Your task to perform on an android device: Open Youtube and go to "Your channel" Image 0: 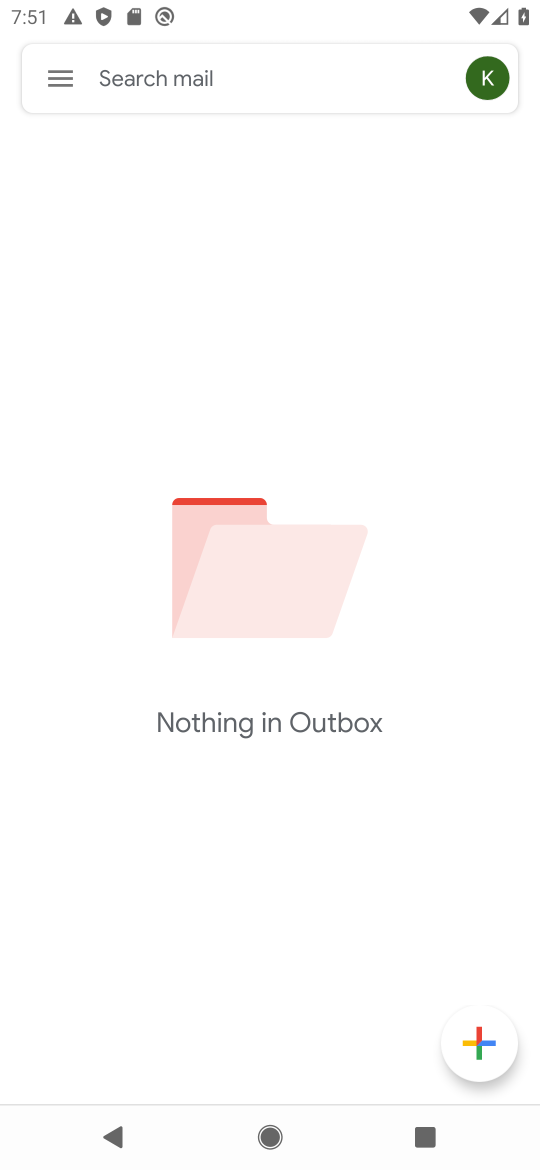
Step 0: press home button
Your task to perform on an android device: Open Youtube and go to "Your channel" Image 1: 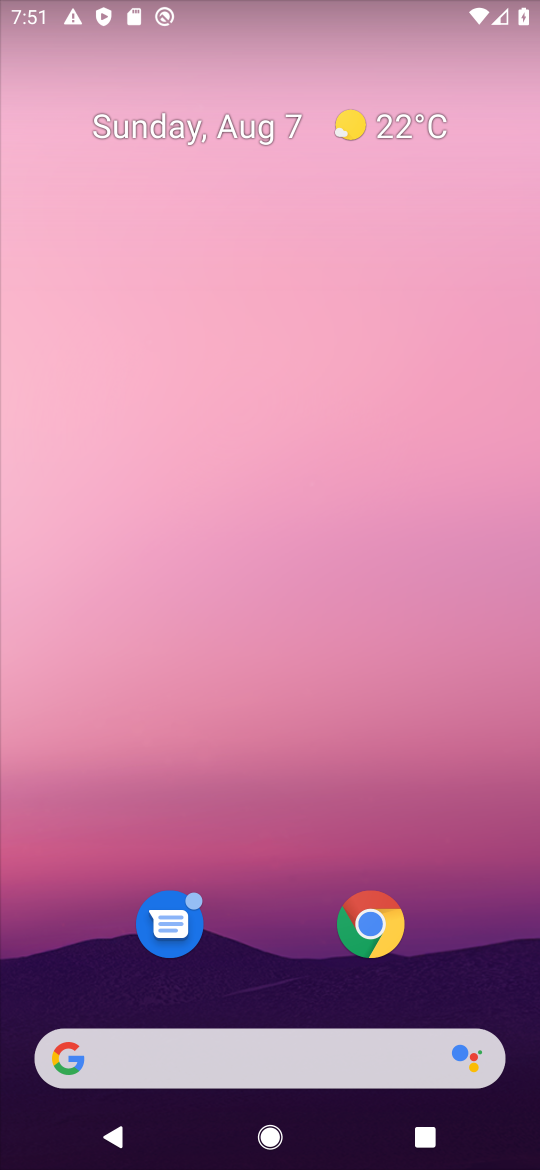
Step 1: drag from (268, 962) to (272, 67)
Your task to perform on an android device: Open Youtube and go to "Your channel" Image 2: 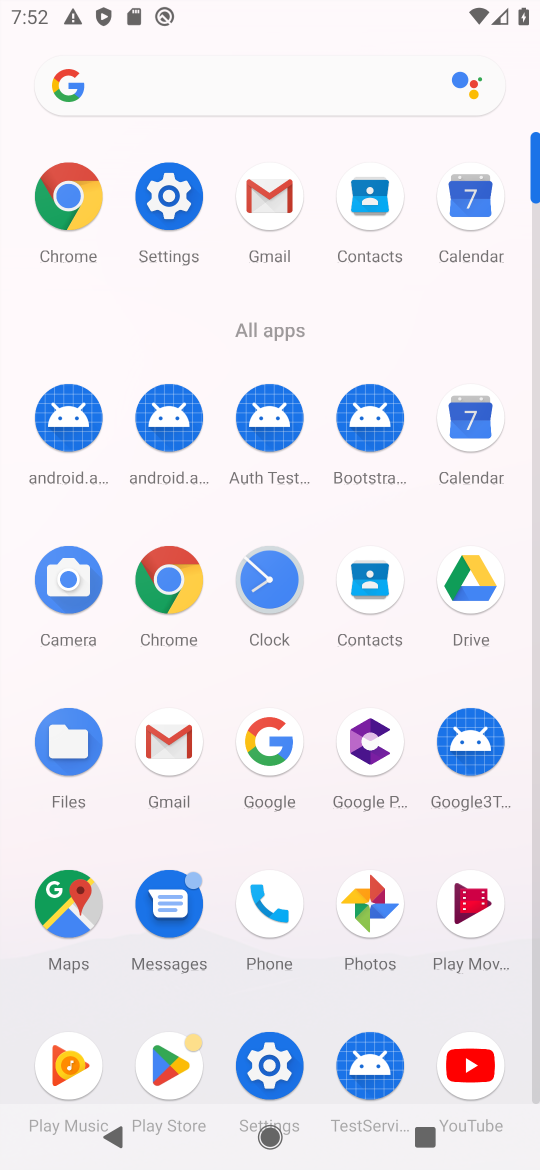
Step 2: click (478, 1066)
Your task to perform on an android device: Open Youtube and go to "Your channel" Image 3: 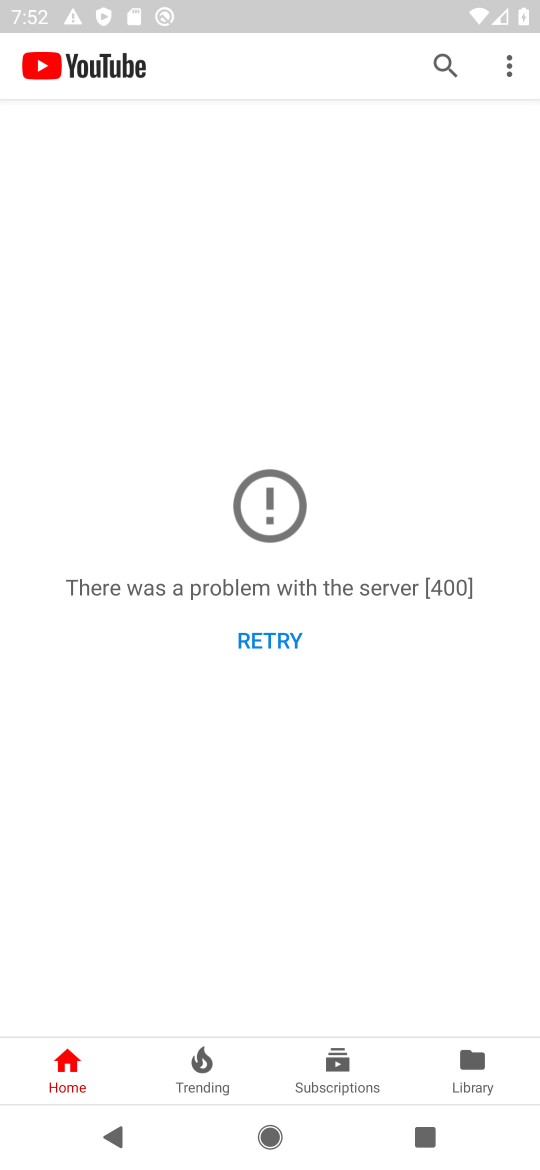
Step 3: click (510, 60)
Your task to perform on an android device: Open Youtube and go to "Your channel" Image 4: 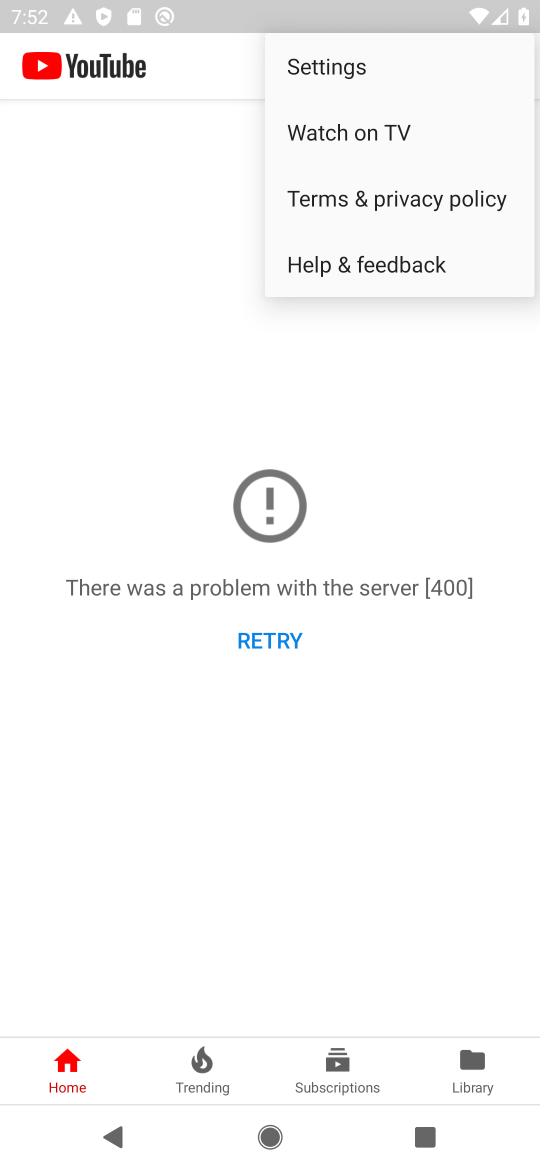
Step 4: click (214, 273)
Your task to perform on an android device: Open Youtube and go to "Your channel" Image 5: 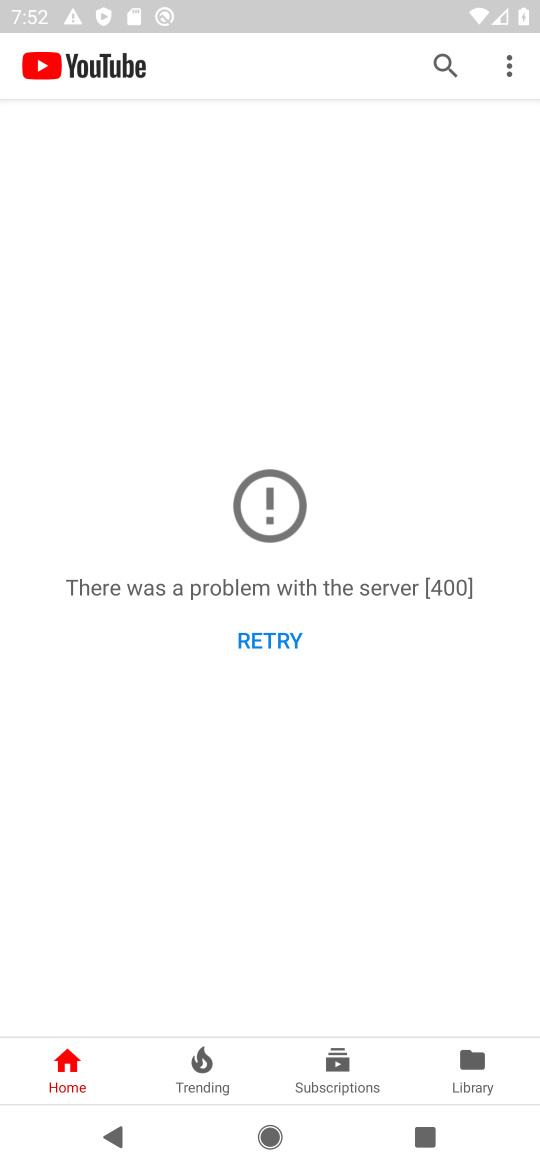
Step 5: click (433, 62)
Your task to perform on an android device: Open Youtube and go to "Your channel" Image 6: 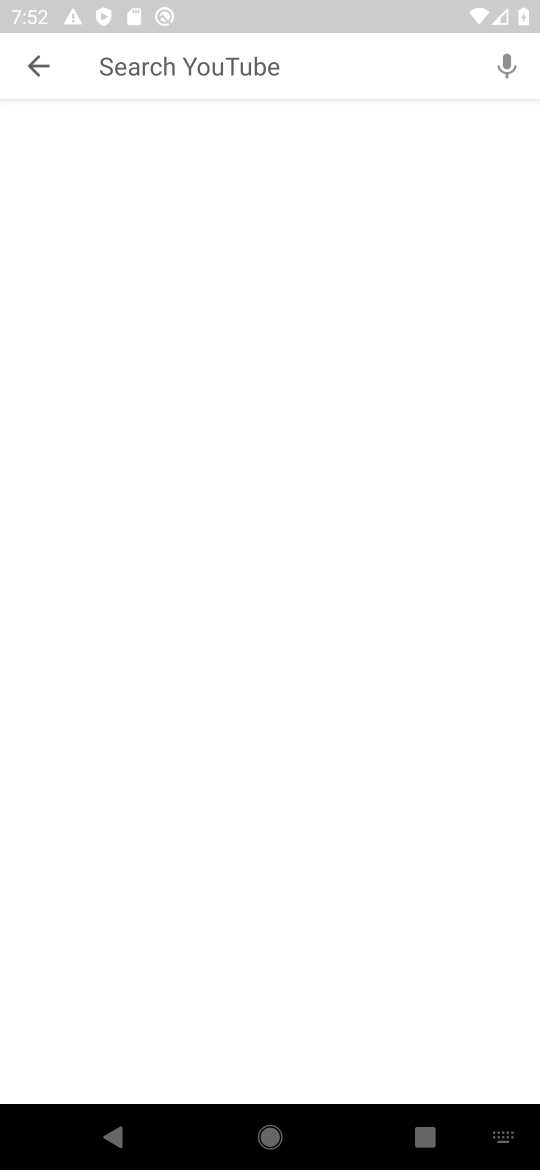
Step 6: type "your channel"
Your task to perform on an android device: Open Youtube and go to "Your channel" Image 7: 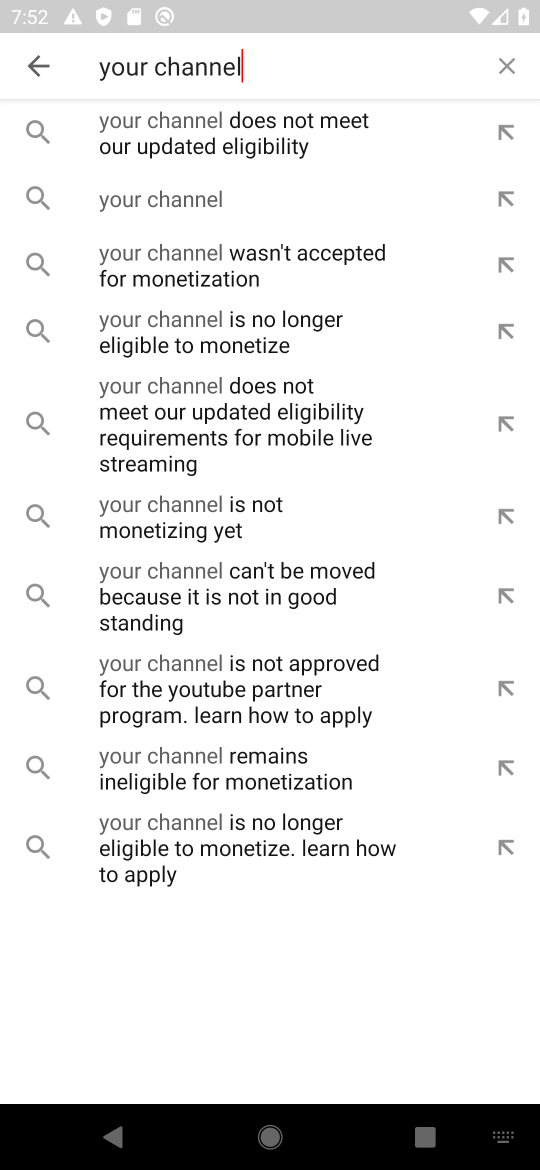
Step 7: click (240, 196)
Your task to perform on an android device: Open Youtube and go to "Your channel" Image 8: 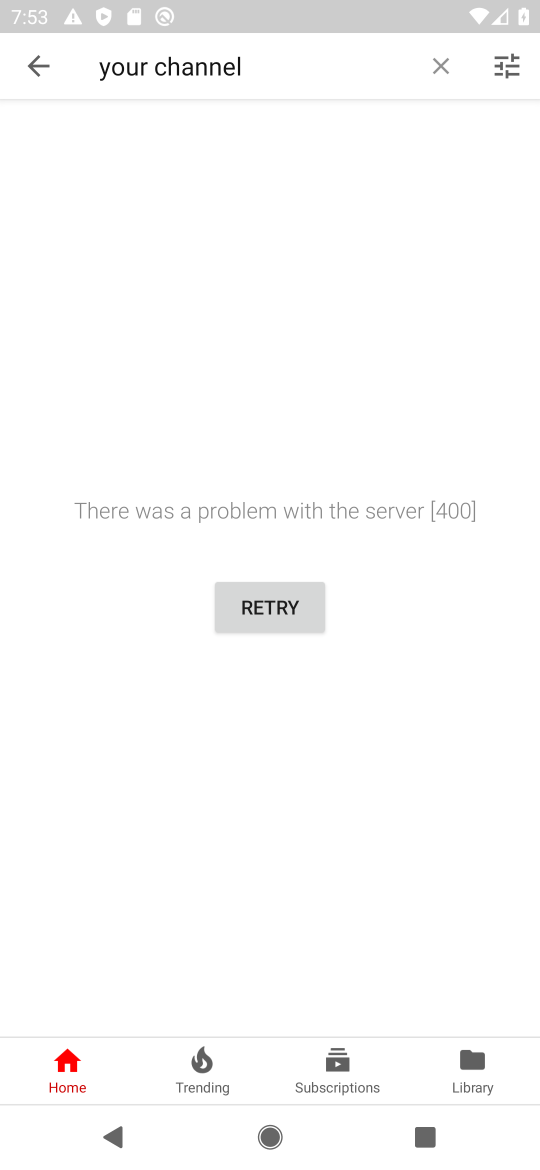
Step 8: task complete